Your task to perform on an android device: Go to display settings Image 0: 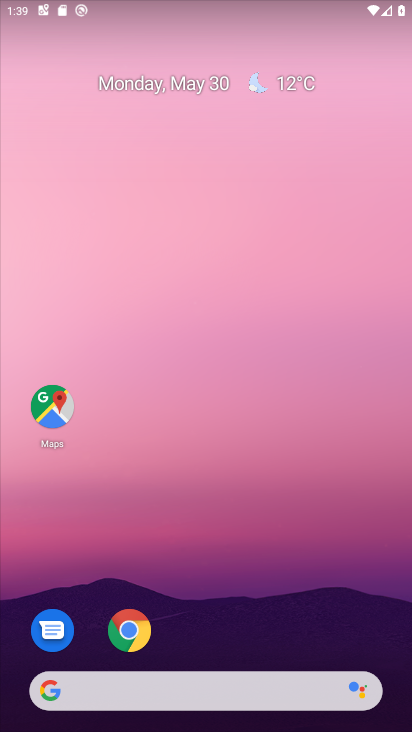
Step 0: drag from (186, 687) to (161, 119)
Your task to perform on an android device: Go to display settings Image 1: 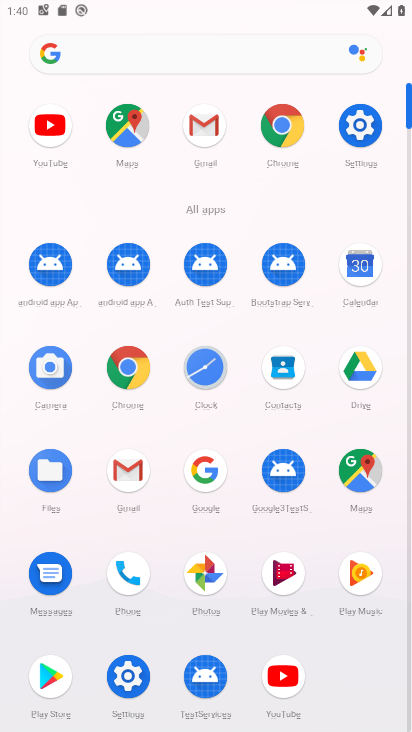
Step 1: click (365, 122)
Your task to perform on an android device: Go to display settings Image 2: 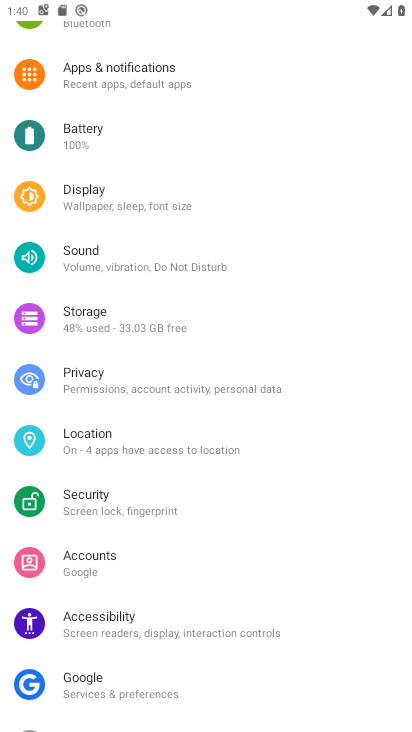
Step 2: click (89, 201)
Your task to perform on an android device: Go to display settings Image 3: 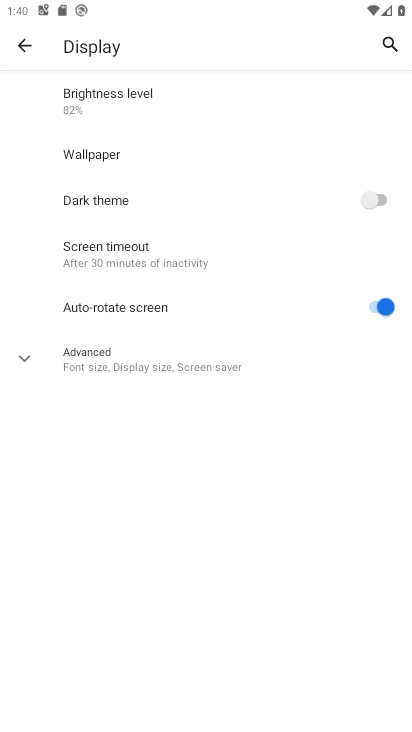
Step 3: task complete